Your task to perform on an android device: refresh tabs in the chrome app Image 0: 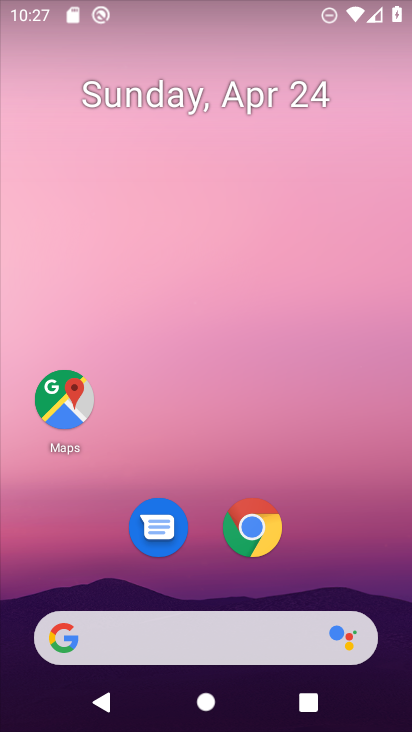
Step 0: drag from (394, 605) to (308, 68)
Your task to perform on an android device: refresh tabs in the chrome app Image 1: 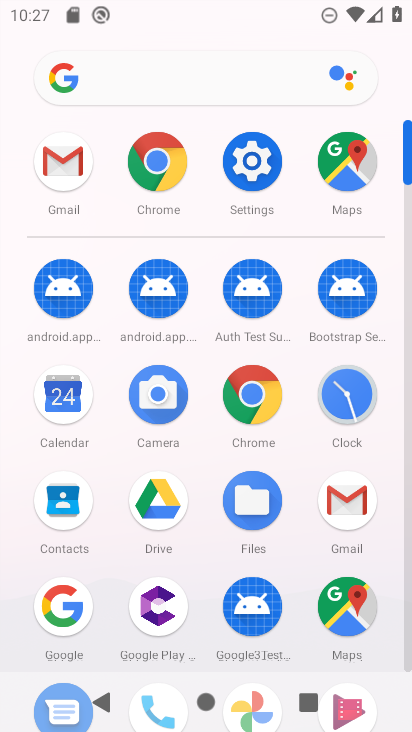
Step 1: click (259, 397)
Your task to perform on an android device: refresh tabs in the chrome app Image 2: 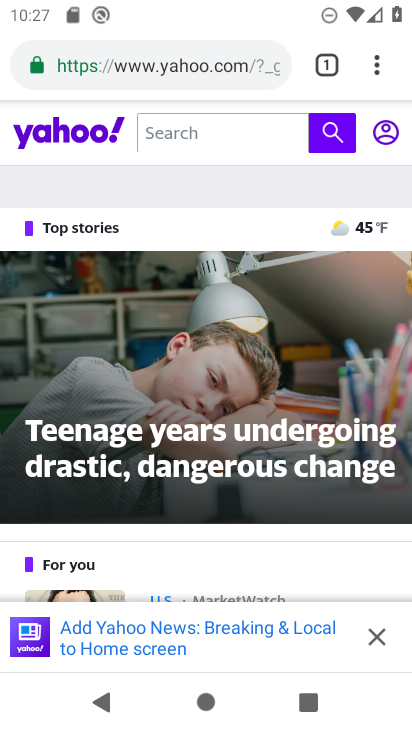
Step 2: press back button
Your task to perform on an android device: refresh tabs in the chrome app Image 3: 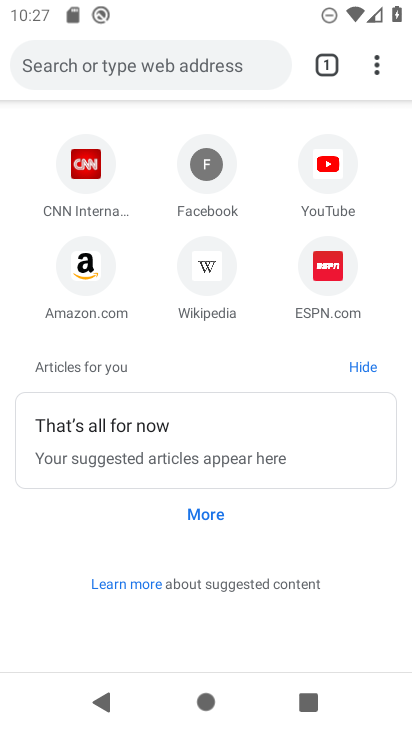
Step 3: click (371, 61)
Your task to perform on an android device: refresh tabs in the chrome app Image 4: 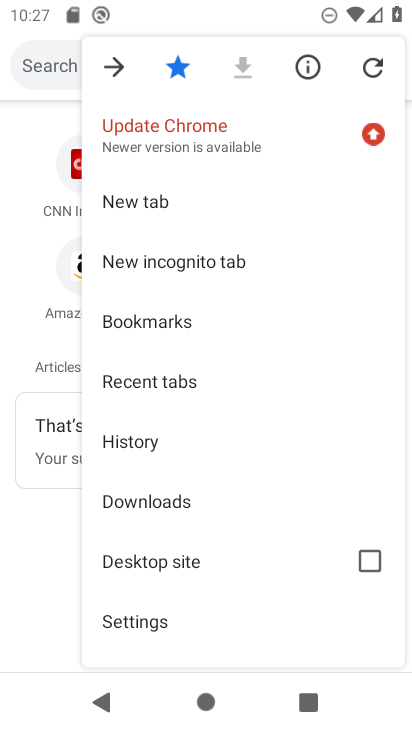
Step 4: click (371, 61)
Your task to perform on an android device: refresh tabs in the chrome app Image 5: 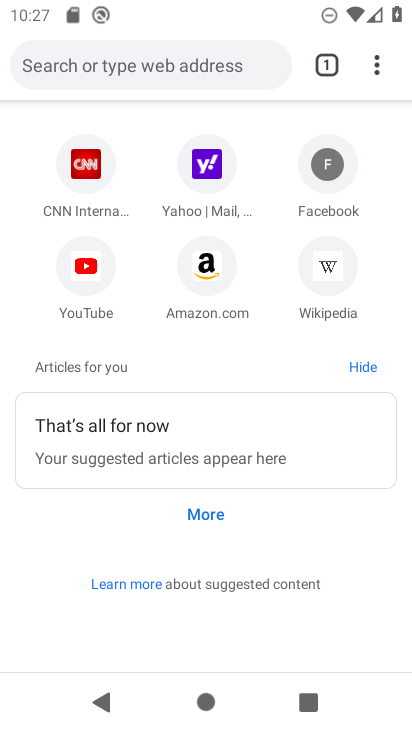
Step 5: task complete